Your task to perform on an android device: turn pop-ups on in chrome Image 0: 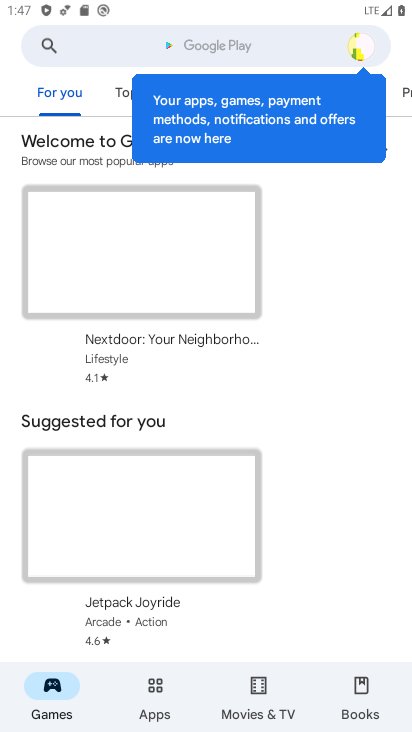
Step 0: press home button
Your task to perform on an android device: turn pop-ups on in chrome Image 1: 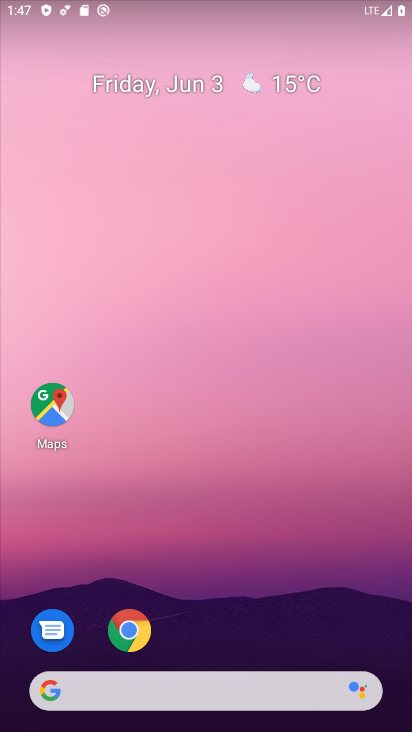
Step 1: drag from (394, 710) to (355, 30)
Your task to perform on an android device: turn pop-ups on in chrome Image 2: 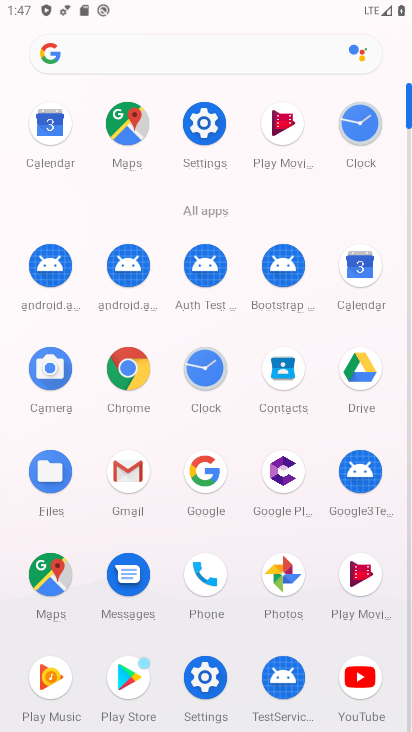
Step 2: click (136, 361)
Your task to perform on an android device: turn pop-ups on in chrome Image 3: 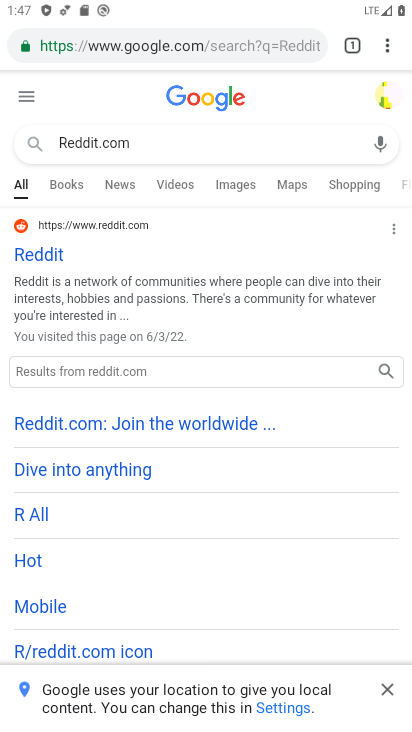
Step 3: click (384, 39)
Your task to perform on an android device: turn pop-ups on in chrome Image 4: 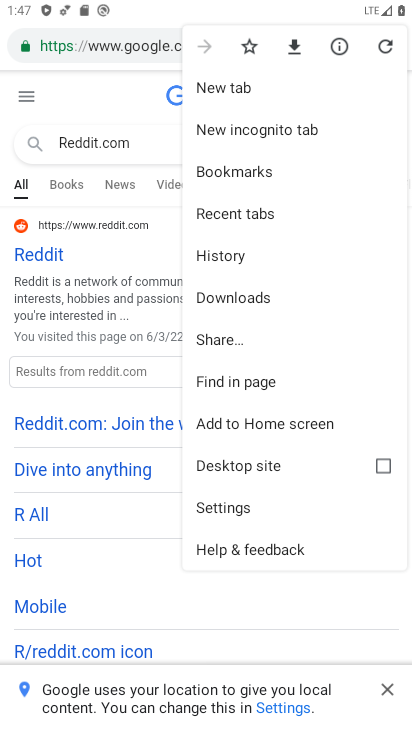
Step 4: click (240, 500)
Your task to perform on an android device: turn pop-ups on in chrome Image 5: 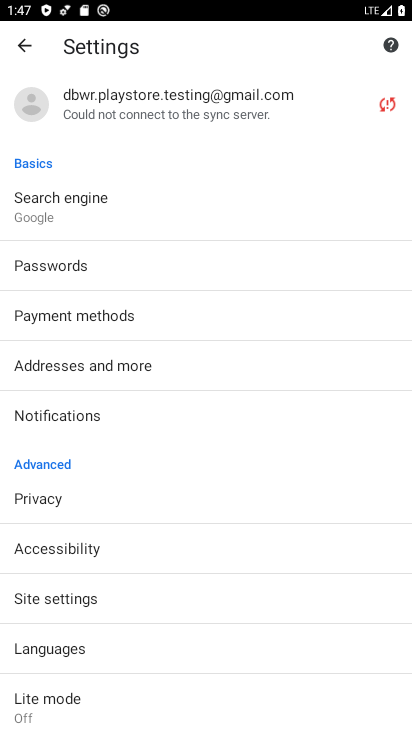
Step 5: click (19, 591)
Your task to perform on an android device: turn pop-ups on in chrome Image 6: 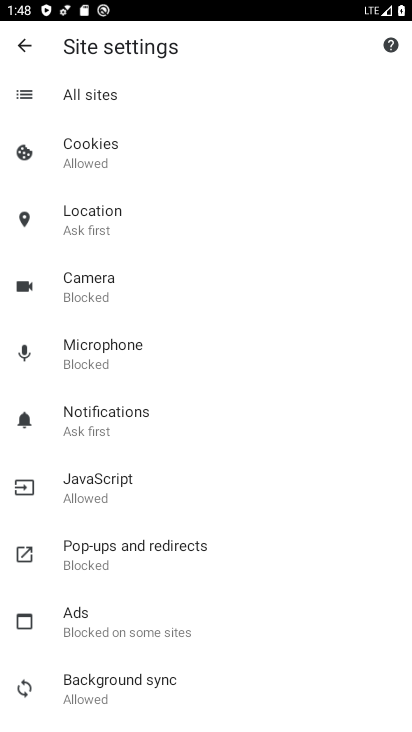
Step 6: click (119, 541)
Your task to perform on an android device: turn pop-ups on in chrome Image 7: 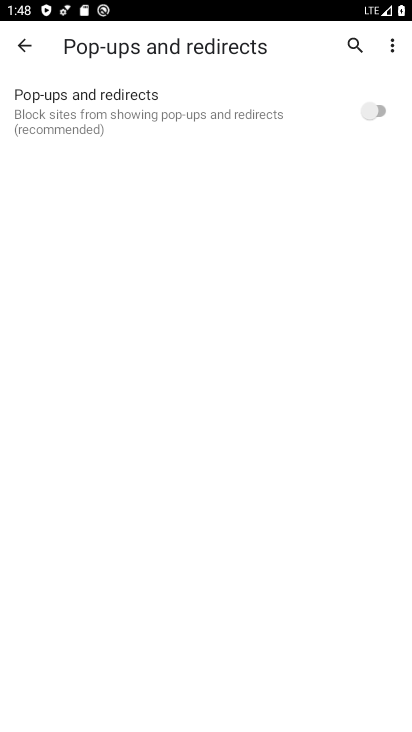
Step 7: click (381, 107)
Your task to perform on an android device: turn pop-ups on in chrome Image 8: 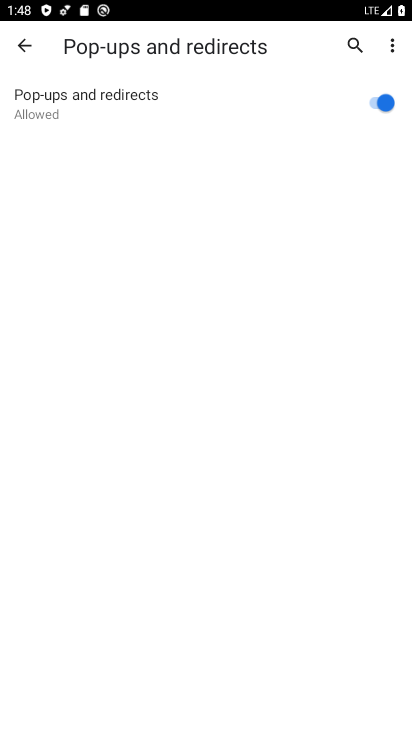
Step 8: task complete